Your task to perform on an android device: change the clock display to show seconds Image 0: 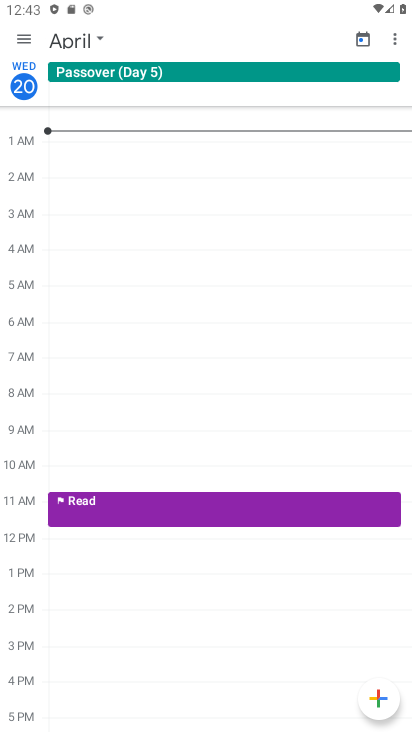
Step 0: press home button
Your task to perform on an android device: change the clock display to show seconds Image 1: 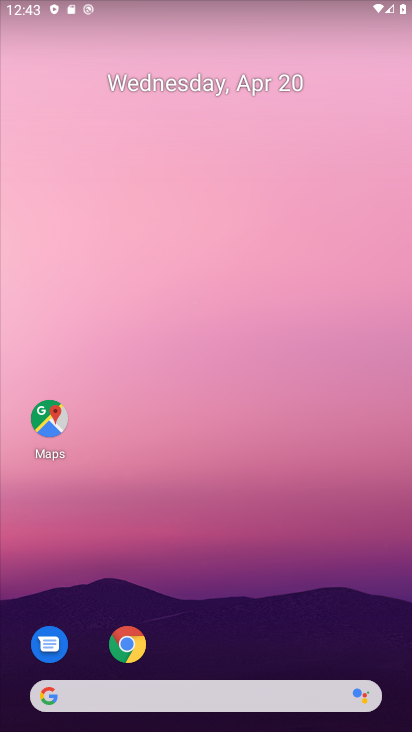
Step 1: drag from (251, 632) to (284, 16)
Your task to perform on an android device: change the clock display to show seconds Image 2: 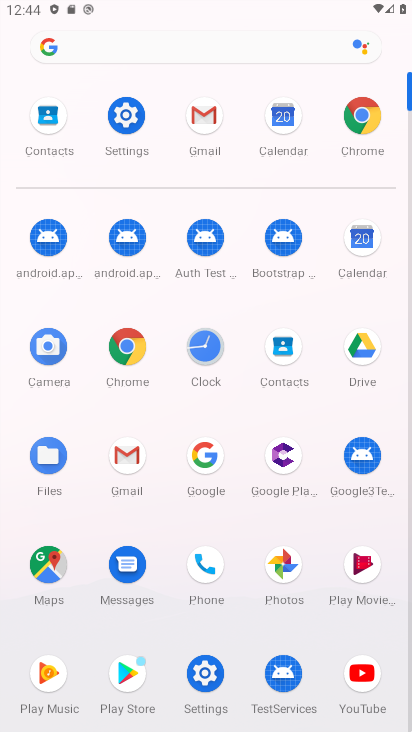
Step 2: click (208, 341)
Your task to perform on an android device: change the clock display to show seconds Image 3: 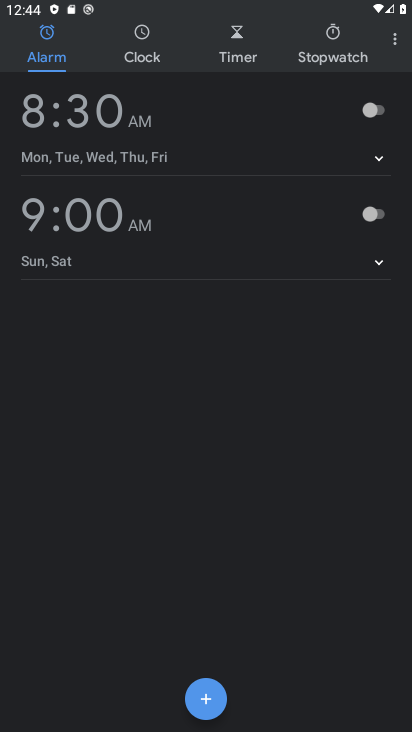
Step 3: click (393, 37)
Your task to perform on an android device: change the clock display to show seconds Image 4: 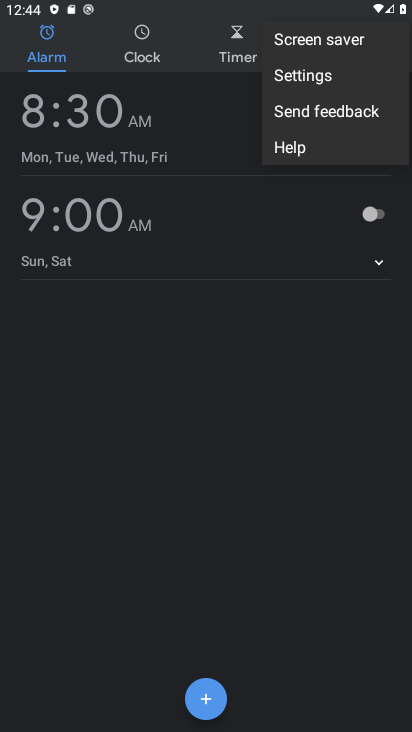
Step 4: click (343, 73)
Your task to perform on an android device: change the clock display to show seconds Image 5: 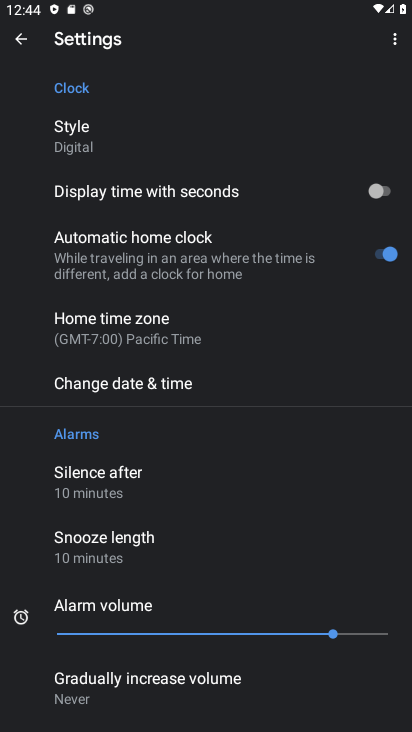
Step 5: click (377, 189)
Your task to perform on an android device: change the clock display to show seconds Image 6: 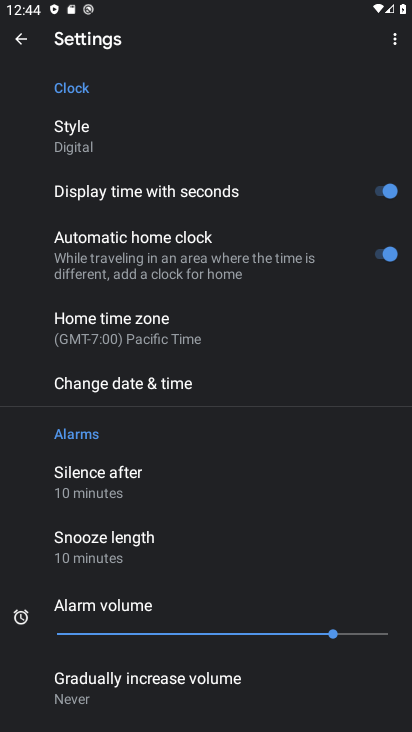
Step 6: task complete